Your task to perform on an android device: Go to internet settings Image 0: 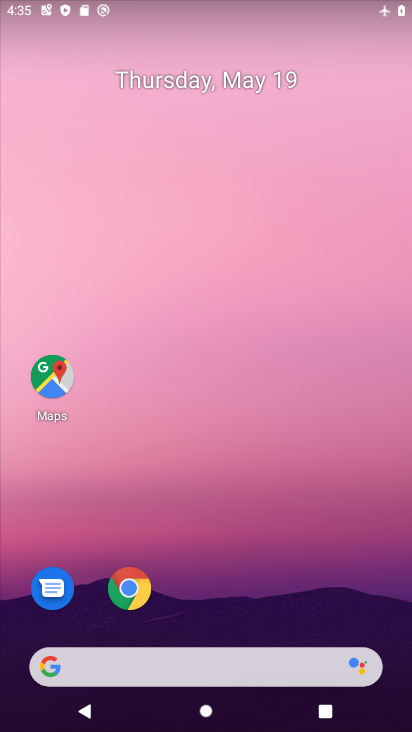
Step 0: drag from (205, 578) to (312, 71)
Your task to perform on an android device: Go to internet settings Image 1: 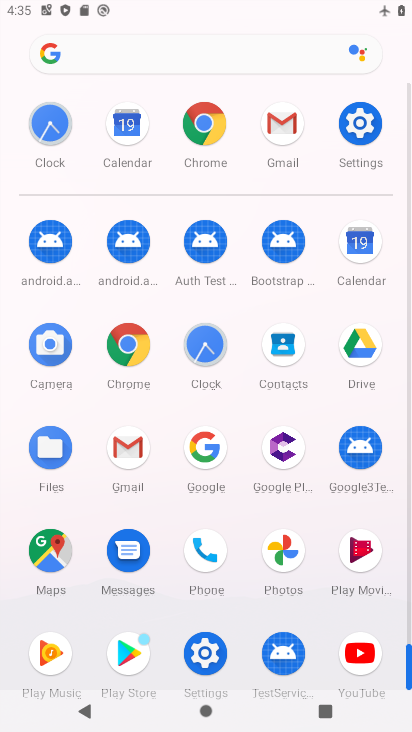
Step 1: click (375, 146)
Your task to perform on an android device: Go to internet settings Image 2: 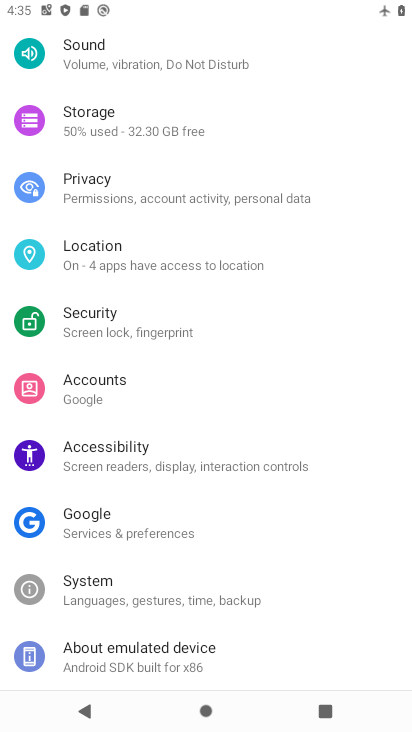
Step 2: drag from (245, 230) to (221, 579)
Your task to perform on an android device: Go to internet settings Image 3: 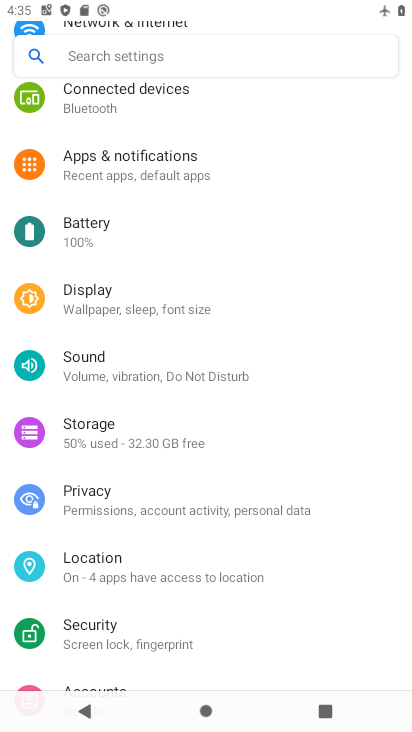
Step 3: drag from (194, 140) to (168, 532)
Your task to perform on an android device: Go to internet settings Image 4: 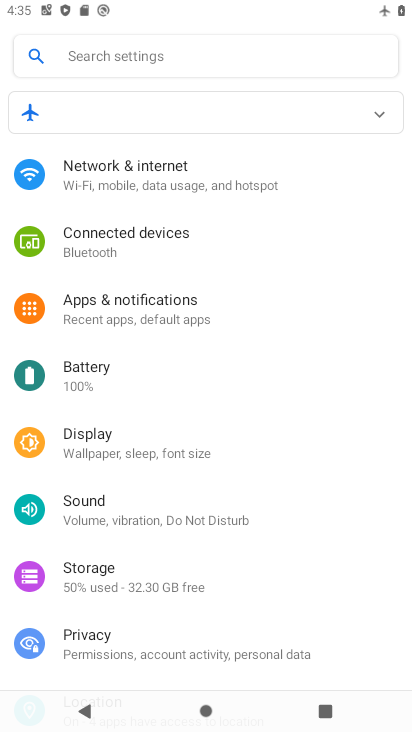
Step 4: click (156, 168)
Your task to perform on an android device: Go to internet settings Image 5: 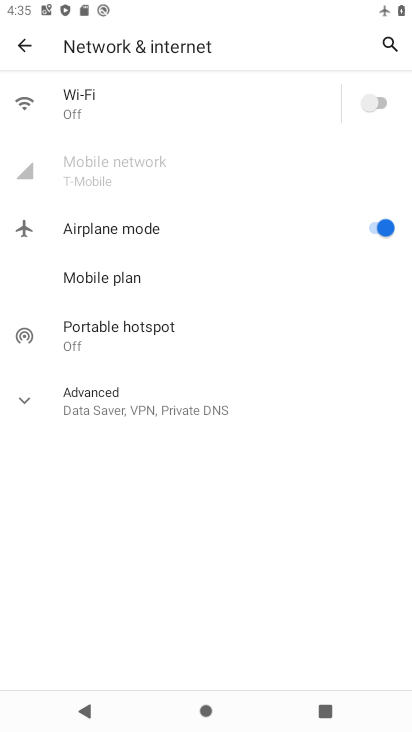
Step 5: task complete